Your task to perform on an android device: toggle wifi Image 0: 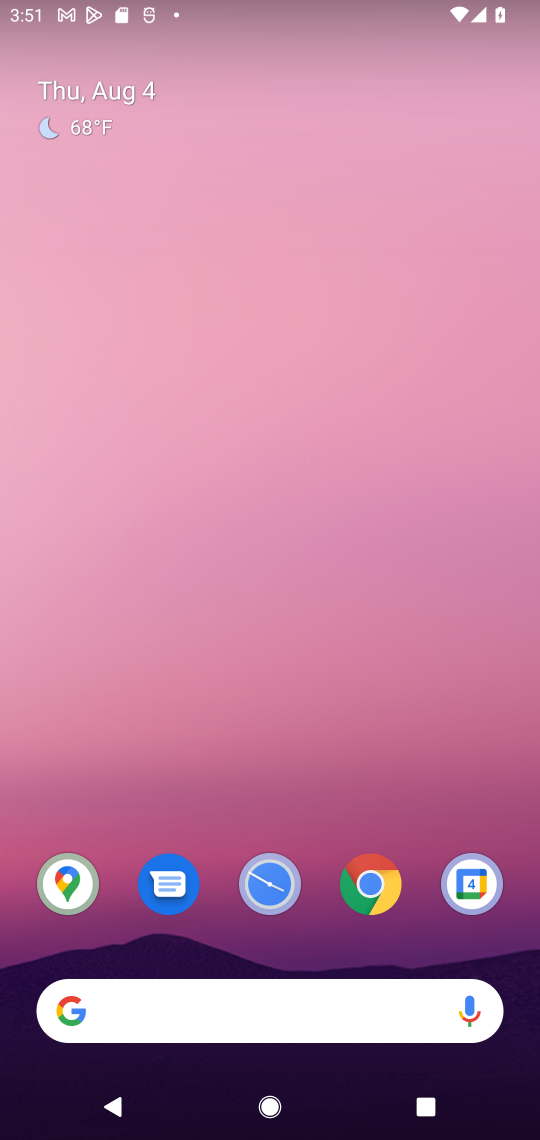
Step 0: drag from (413, 940) to (360, 368)
Your task to perform on an android device: toggle wifi Image 1: 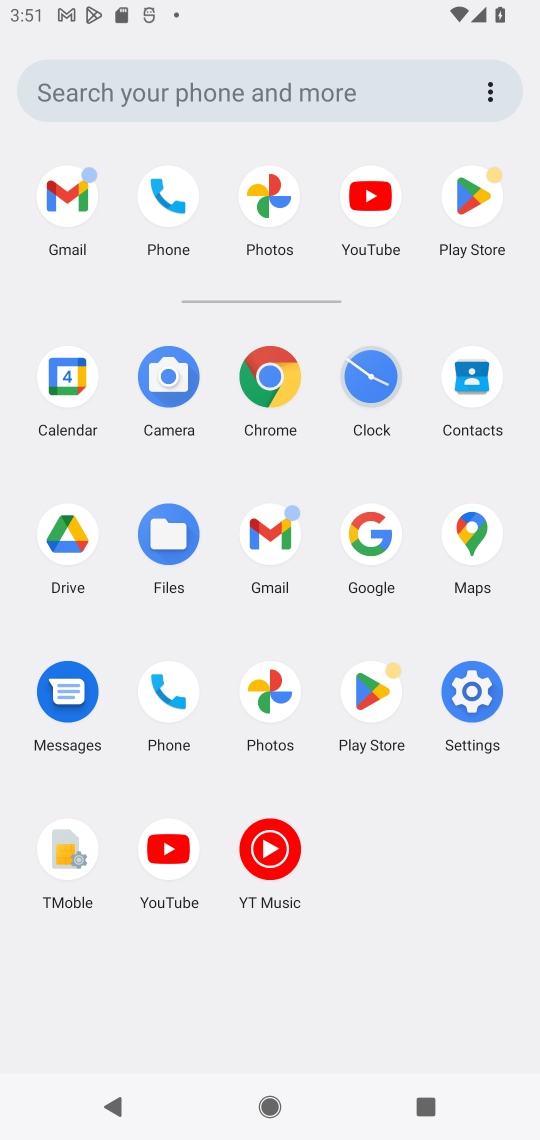
Step 1: click (473, 731)
Your task to perform on an android device: toggle wifi Image 2: 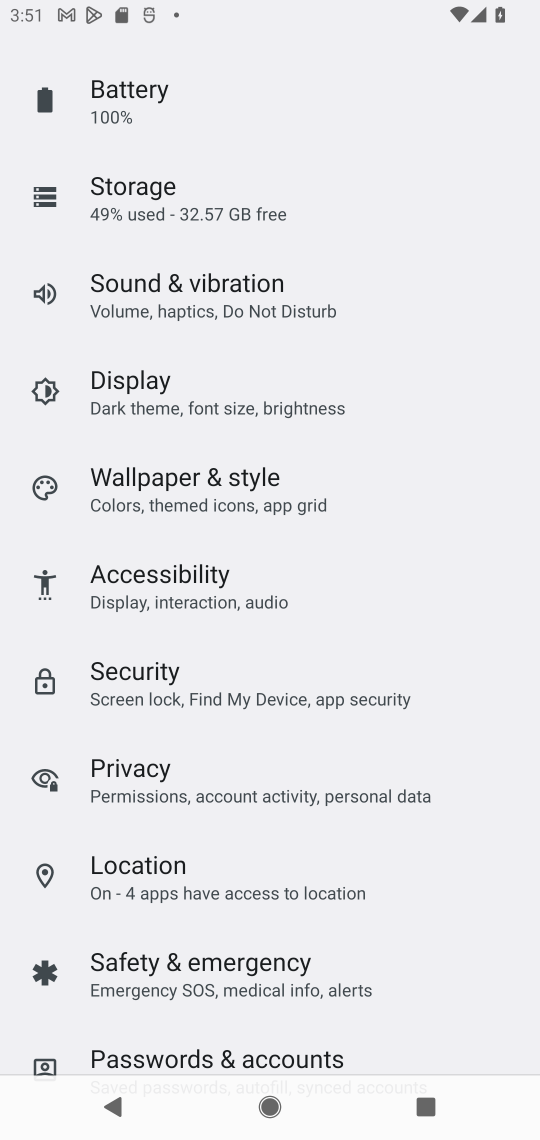
Step 2: task complete